Your task to perform on an android device: What's on my calendar today? Image 0: 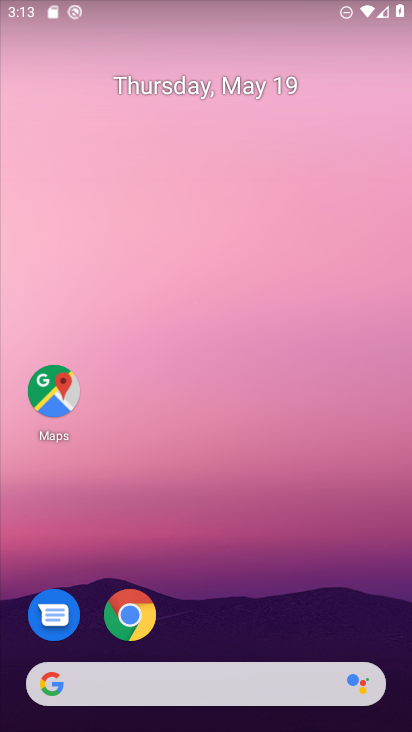
Step 0: drag from (275, 616) to (201, 145)
Your task to perform on an android device: What's on my calendar today? Image 1: 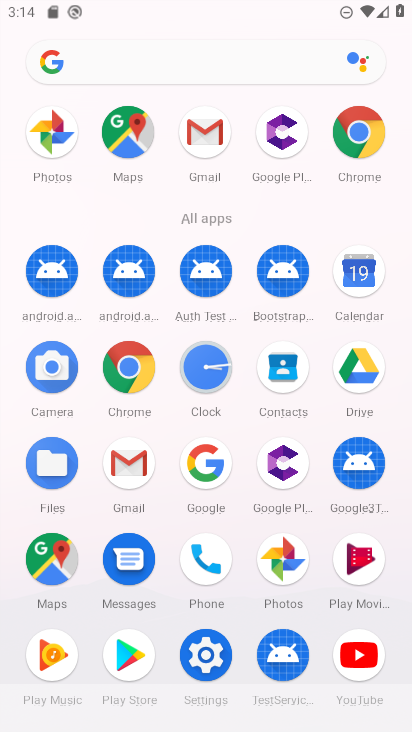
Step 1: click (366, 295)
Your task to perform on an android device: What's on my calendar today? Image 2: 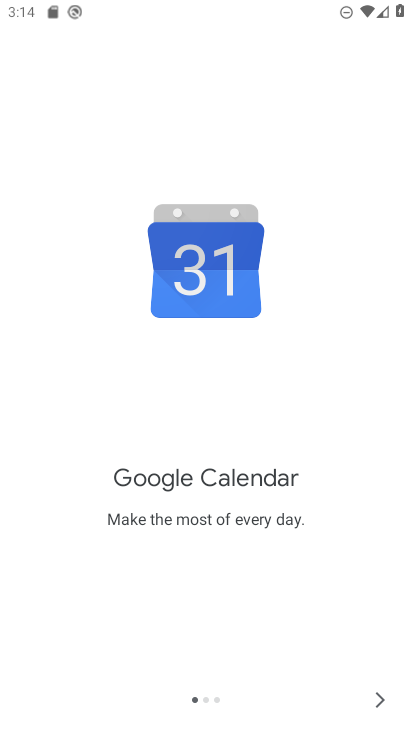
Step 2: click (374, 698)
Your task to perform on an android device: What's on my calendar today? Image 3: 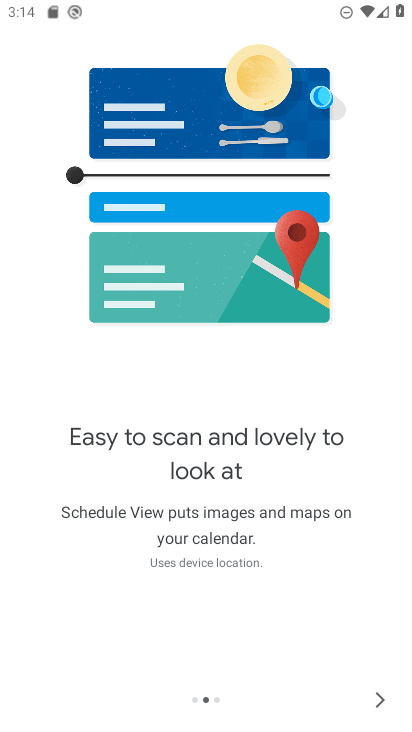
Step 3: click (374, 698)
Your task to perform on an android device: What's on my calendar today? Image 4: 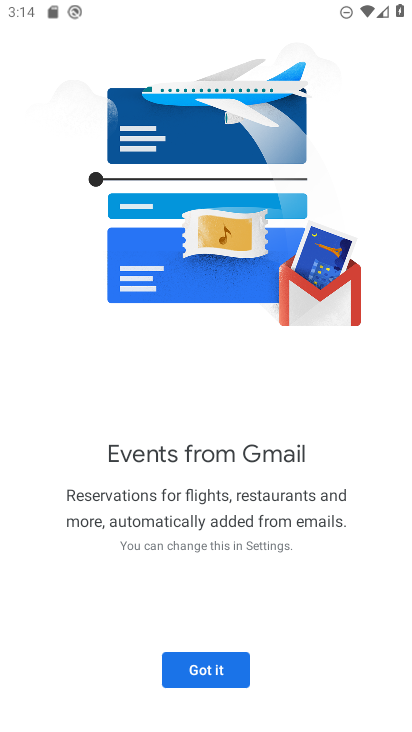
Step 4: click (227, 672)
Your task to perform on an android device: What's on my calendar today? Image 5: 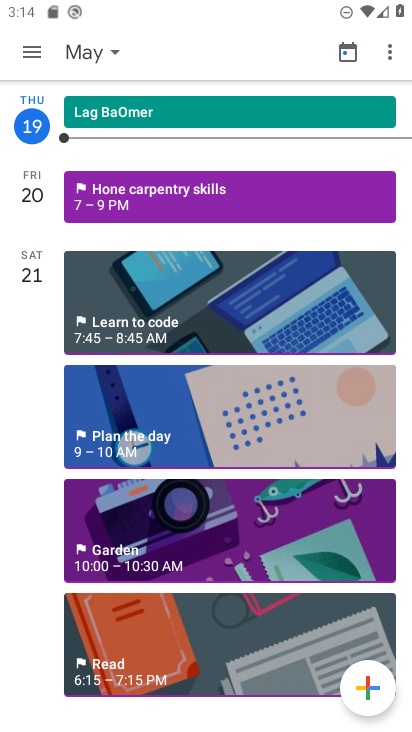
Step 5: click (42, 52)
Your task to perform on an android device: What's on my calendar today? Image 6: 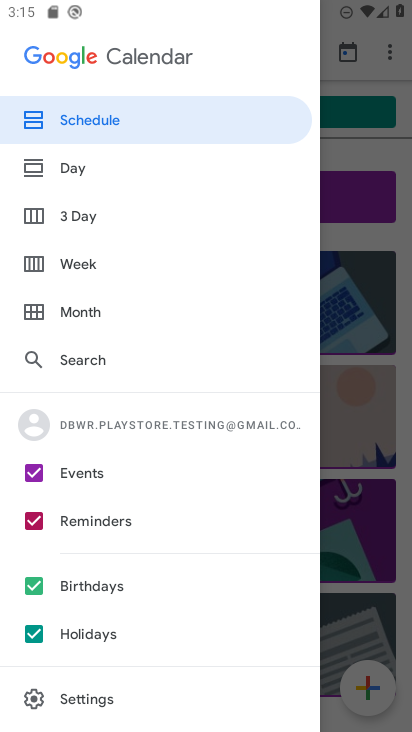
Step 6: click (138, 173)
Your task to perform on an android device: What's on my calendar today? Image 7: 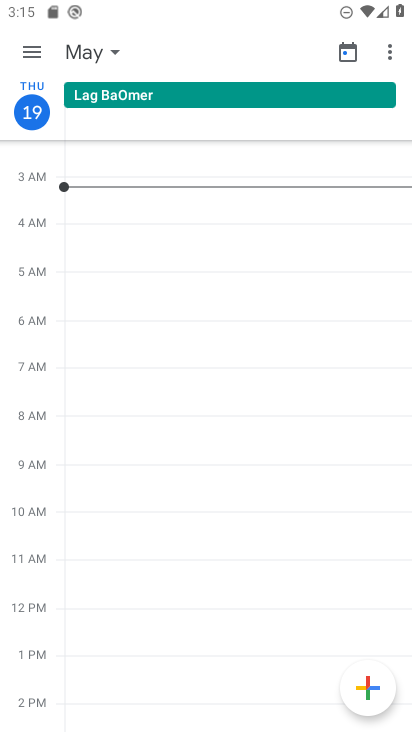
Step 7: task complete